Your task to perform on an android device: open a bookmark in the chrome app Image 0: 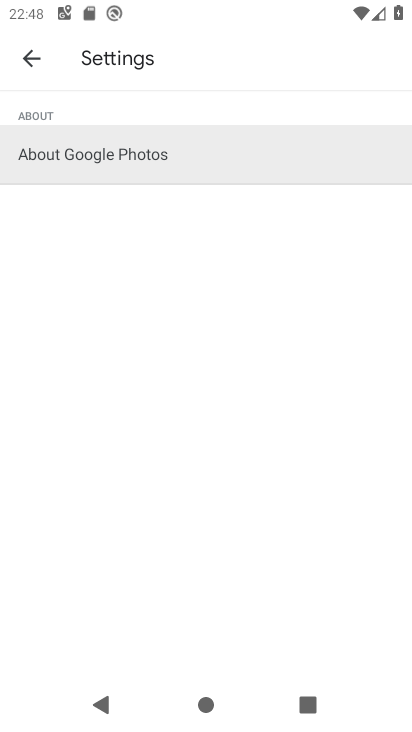
Step 0: press home button
Your task to perform on an android device: open a bookmark in the chrome app Image 1: 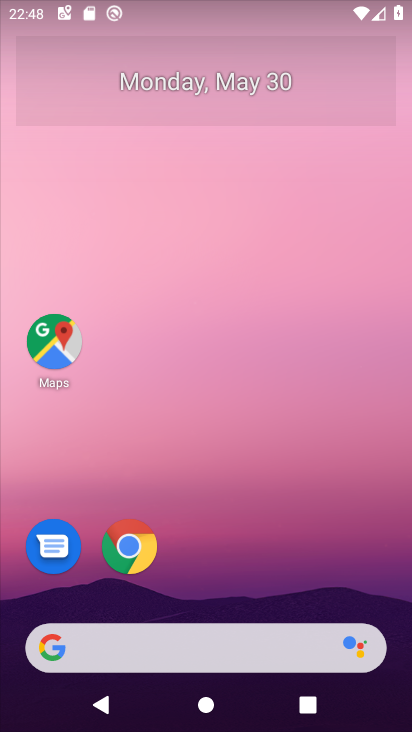
Step 1: click (154, 537)
Your task to perform on an android device: open a bookmark in the chrome app Image 2: 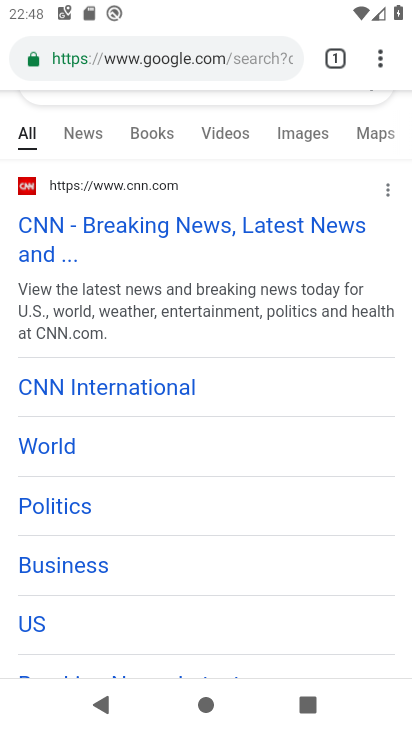
Step 2: click (387, 50)
Your task to perform on an android device: open a bookmark in the chrome app Image 3: 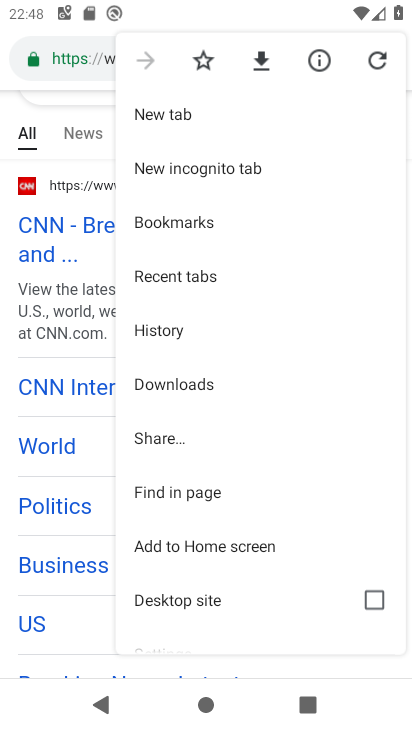
Step 3: click (175, 223)
Your task to perform on an android device: open a bookmark in the chrome app Image 4: 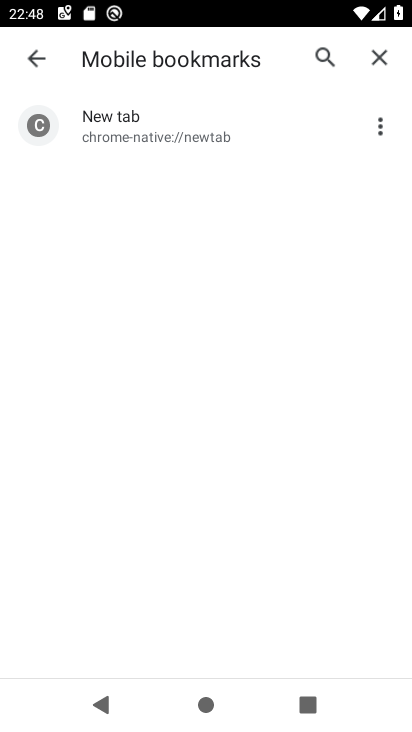
Step 4: click (193, 139)
Your task to perform on an android device: open a bookmark in the chrome app Image 5: 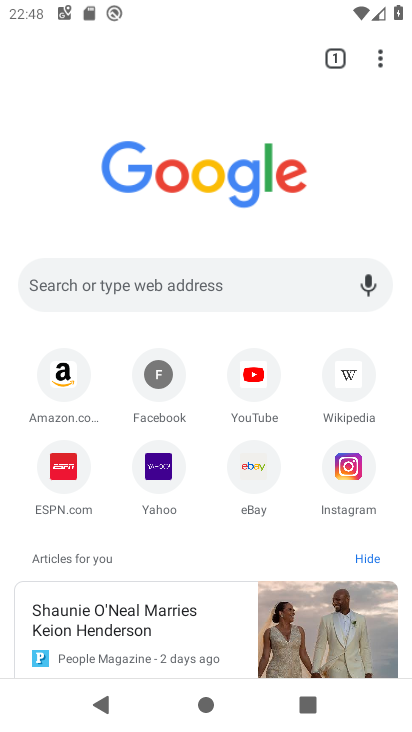
Step 5: task complete